Your task to perform on an android device: turn on improve location accuracy Image 0: 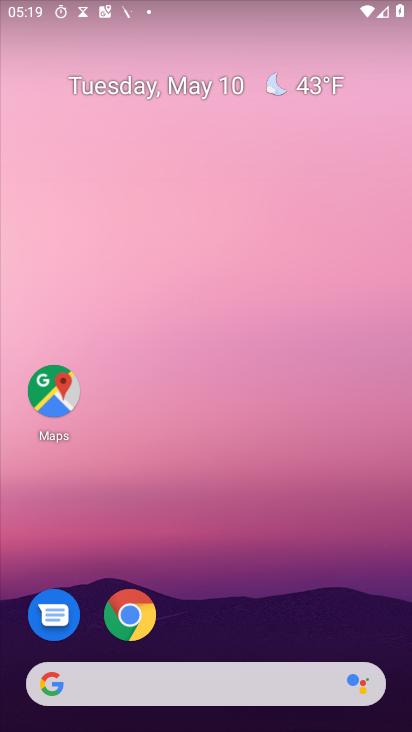
Step 0: drag from (346, 645) to (307, 76)
Your task to perform on an android device: turn on improve location accuracy Image 1: 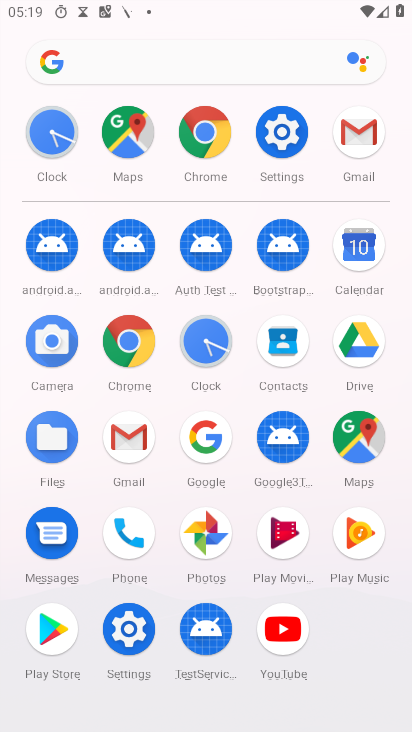
Step 1: click (279, 142)
Your task to perform on an android device: turn on improve location accuracy Image 2: 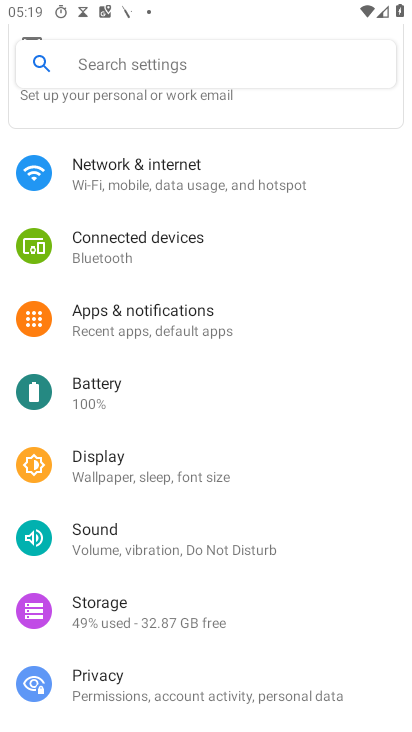
Step 2: drag from (194, 679) to (169, 239)
Your task to perform on an android device: turn on improve location accuracy Image 3: 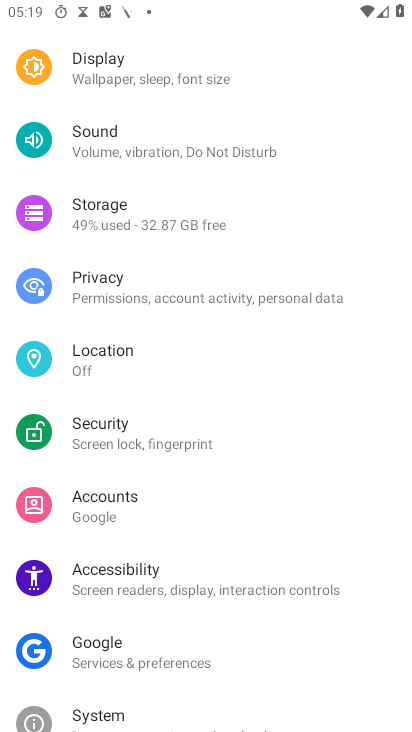
Step 3: click (138, 348)
Your task to perform on an android device: turn on improve location accuracy Image 4: 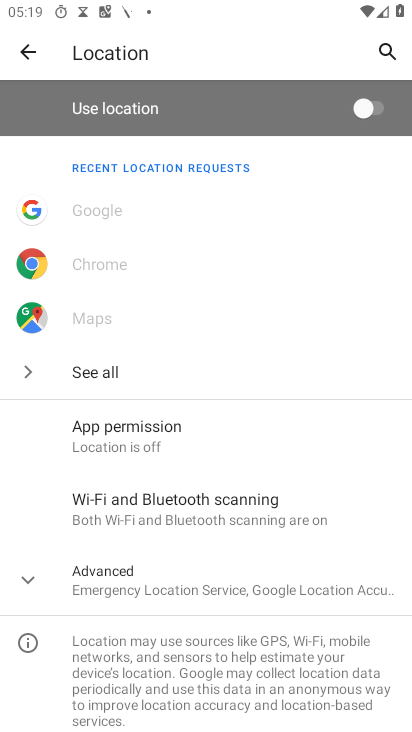
Step 4: drag from (229, 671) to (232, 390)
Your task to perform on an android device: turn on improve location accuracy Image 5: 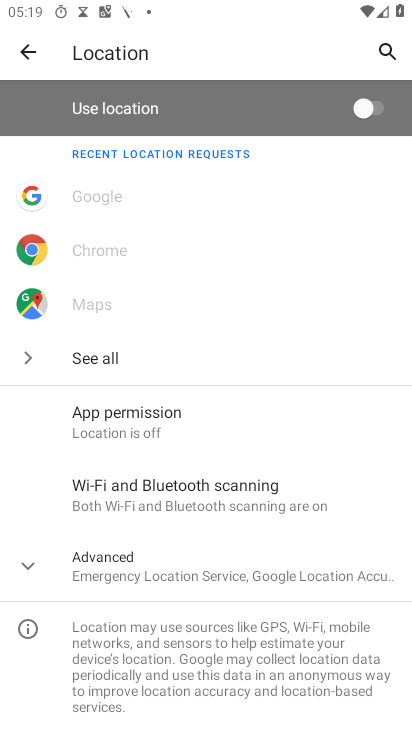
Step 5: click (226, 558)
Your task to perform on an android device: turn on improve location accuracy Image 6: 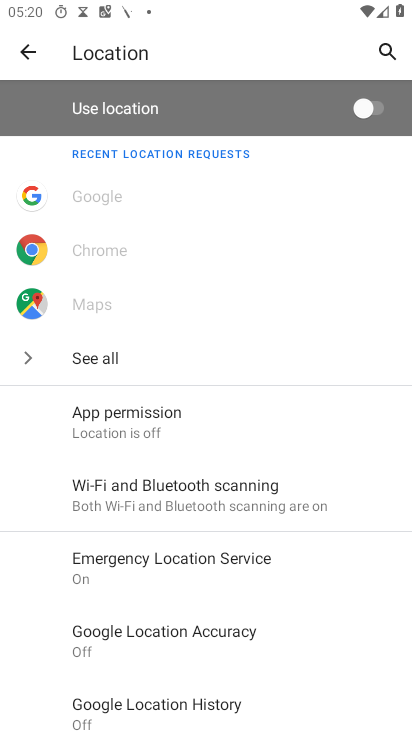
Step 6: click (192, 646)
Your task to perform on an android device: turn on improve location accuracy Image 7: 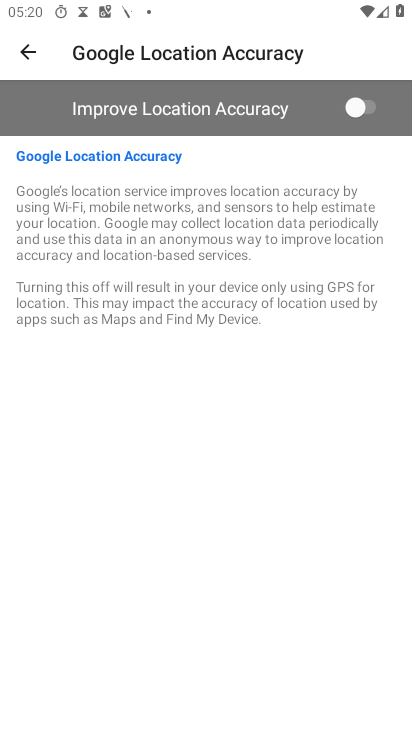
Step 7: click (369, 106)
Your task to perform on an android device: turn on improve location accuracy Image 8: 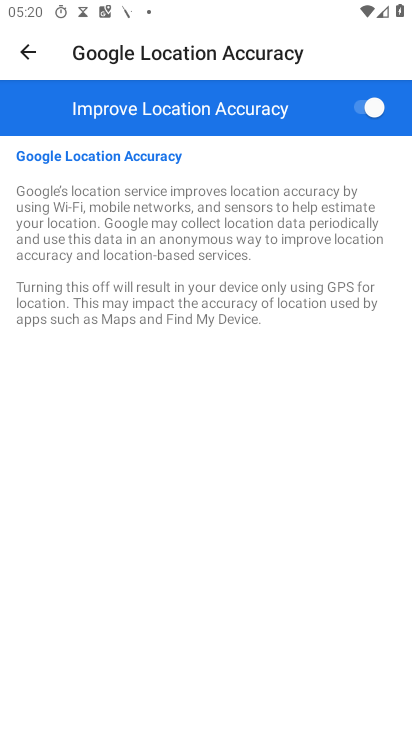
Step 8: task complete